Your task to perform on an android device: read, delete, or share a saved page in the chrome app Image 0: 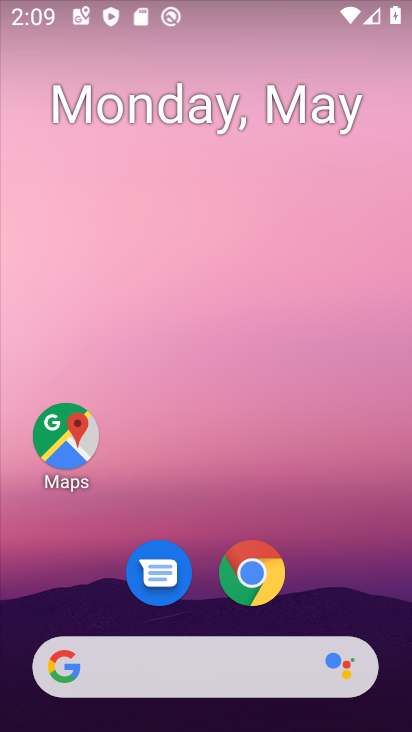
Step 0: click (244, 562)
Your task to perform on an android device: read, delete, or share a saved page in the chrome app Image 1: 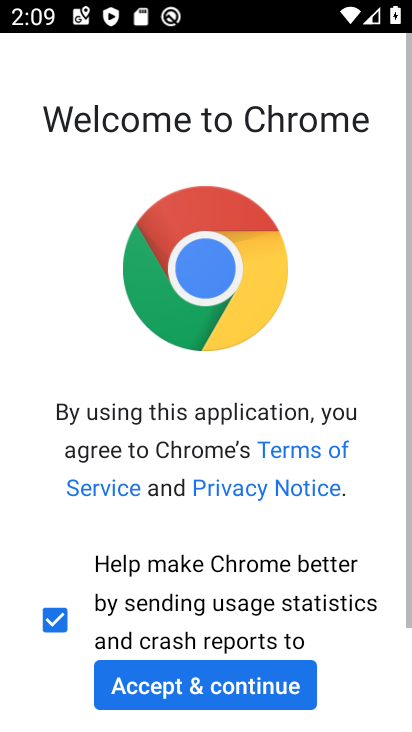
Step 1: click (283, 680)
Your task to perform on an android device: read, delete, or share a saved page in the chrome app Image 2: 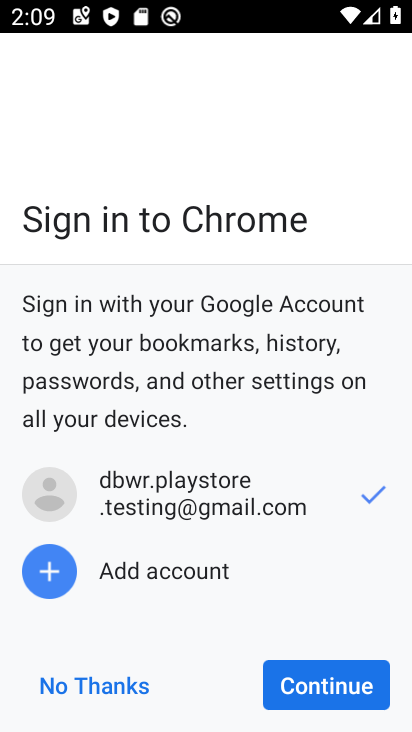
Step 2: click (317, 682)
Your task to perform on an android device: read, delete, or share a saved page in the chrome app Image 3: 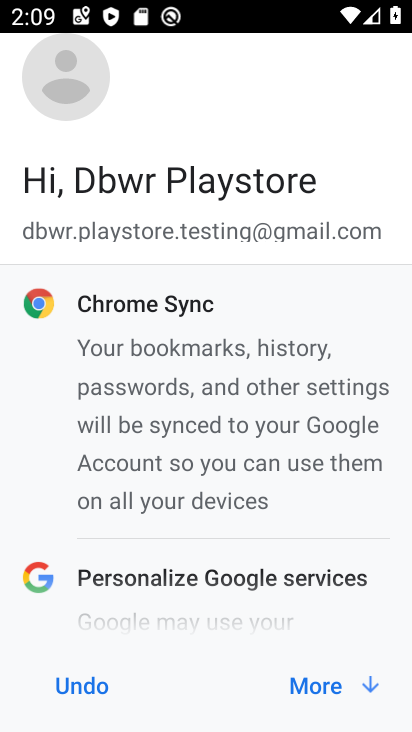
Step 3: click (317, 681)
Your task to perform on an android device: read, delete, or share a saved page in the chrome app Image 4: 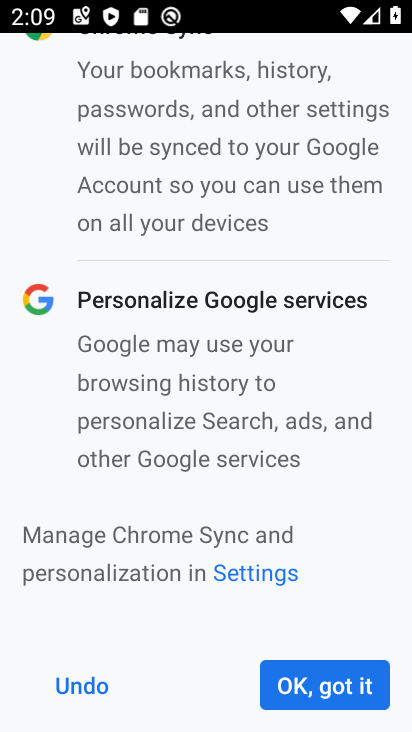
Step 4: click (342, 683)
Your task to perform on an android device: read, delete, or share a saved page in the chrome app Image 5: 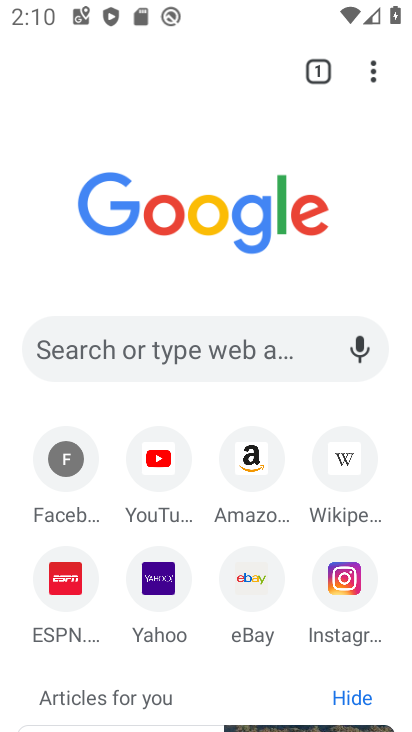
Step 5: drag from (393, 75) to (254, 463)
Your task to perform on an android device: read, delete, or share a saved page in the chrome app Image 6: 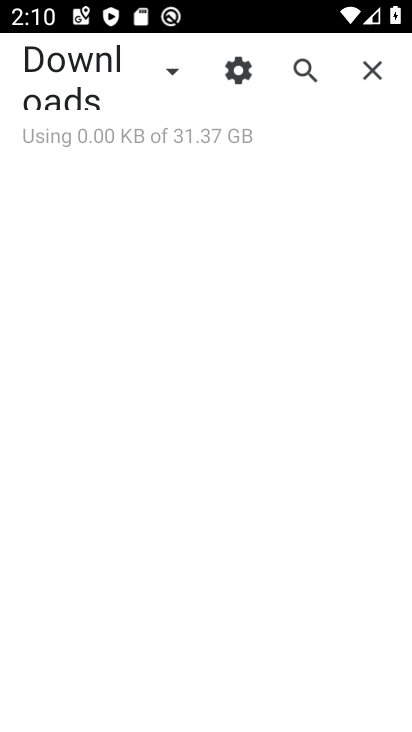
Step 6: click (96, 102)
Your task to perform on an android device: read, delete, or share a saved page in the chrome app Image 7: 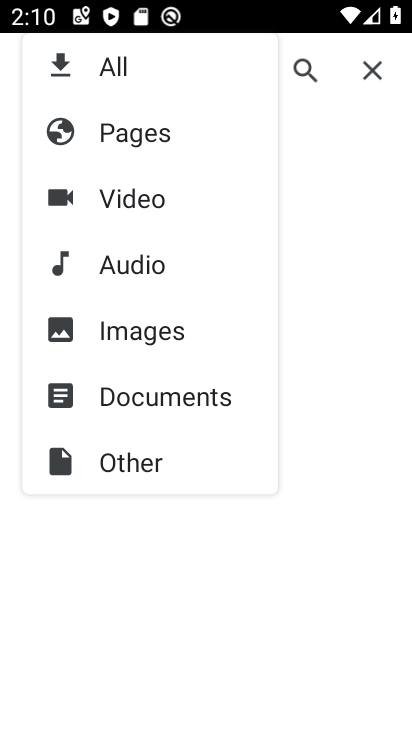
Step 7: click (164, 143)
Your task to perform on an android device: read, delete, or share a saved page in the chrome app Image 8: 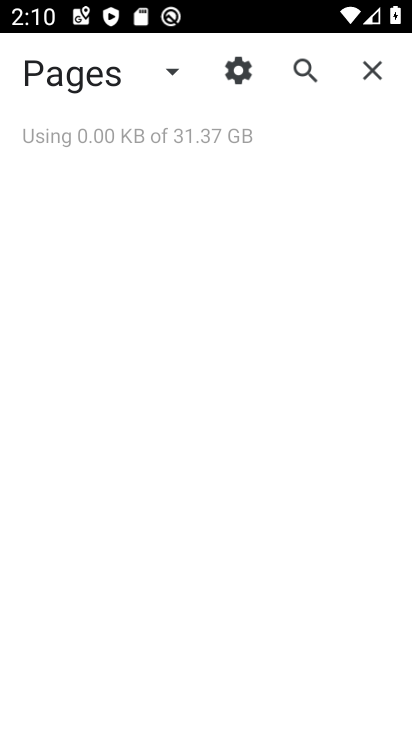
Step 8: task complete